Your task to perform on an android device: open app "Life360: Find Family & Friends" (install if not already installed) Image 0: 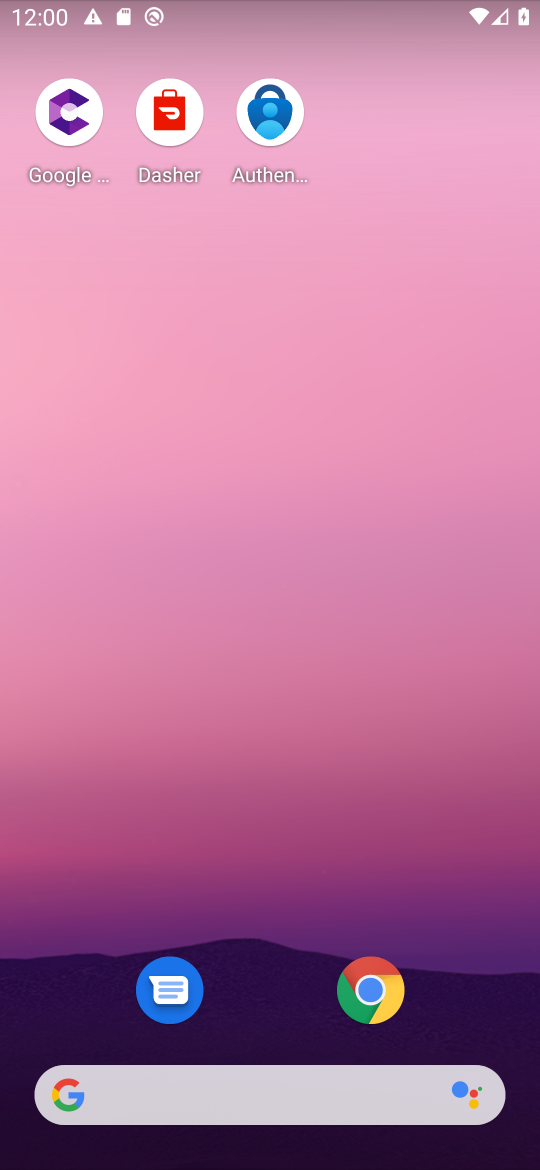
Step 0: drag from (247, 1039) to (304, 181)
Your task to perform on an android device: open app "Life360: Find Family & Friends" (install if not already installed) Image 1: 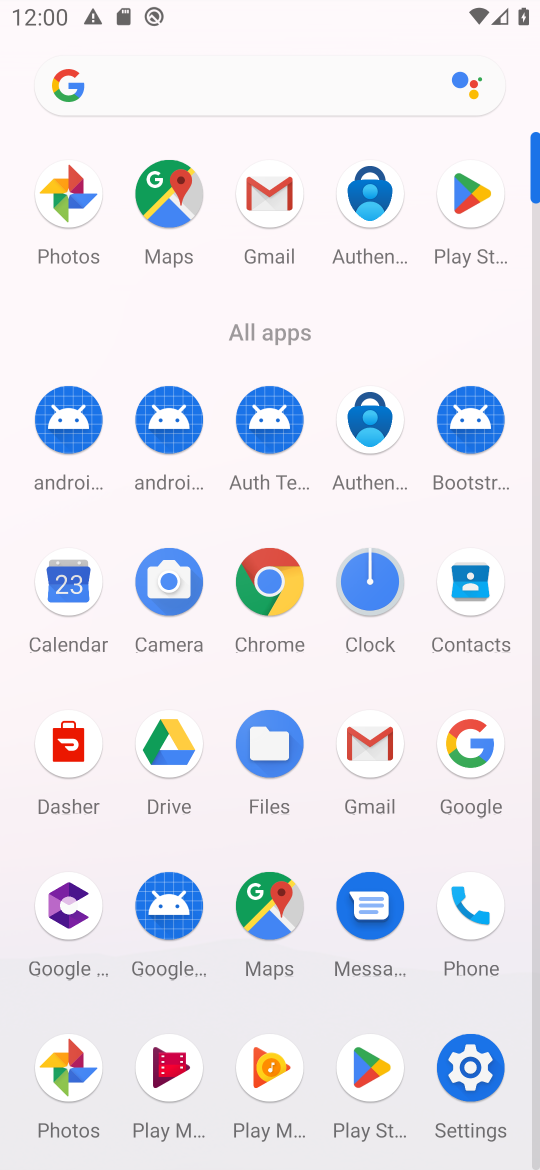
Step 1: click (487, 182)
Your task to perform on an android device: open app "Life360: Find Family & Friends" (install if not already installed) Image 2: 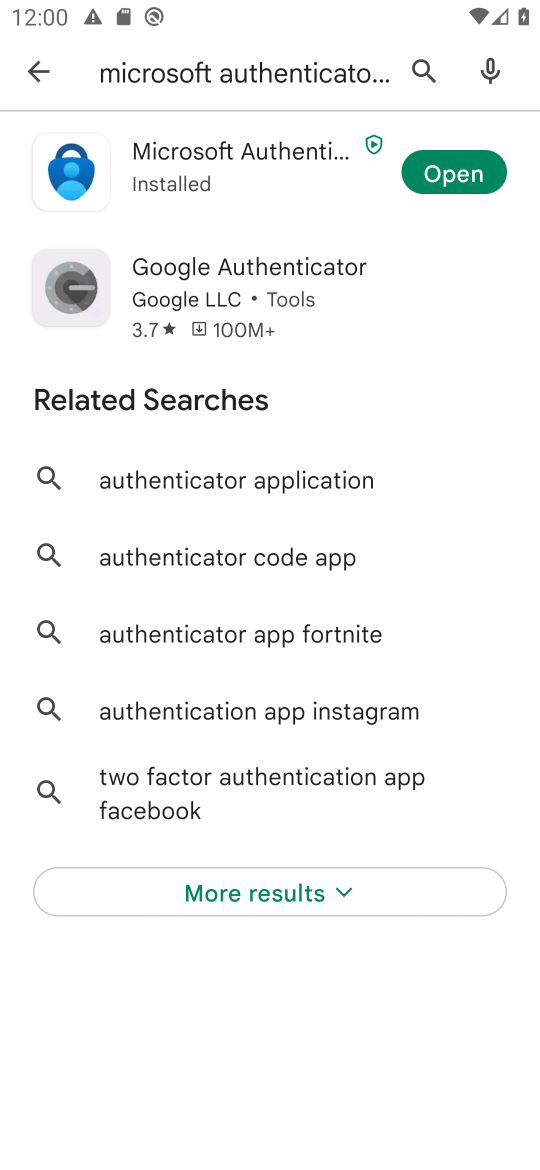
Step 2: click (38, 50)
Your task to perform on an android device: open app "Life360: Find Family & Friends" (install if not already installed) Image 3: 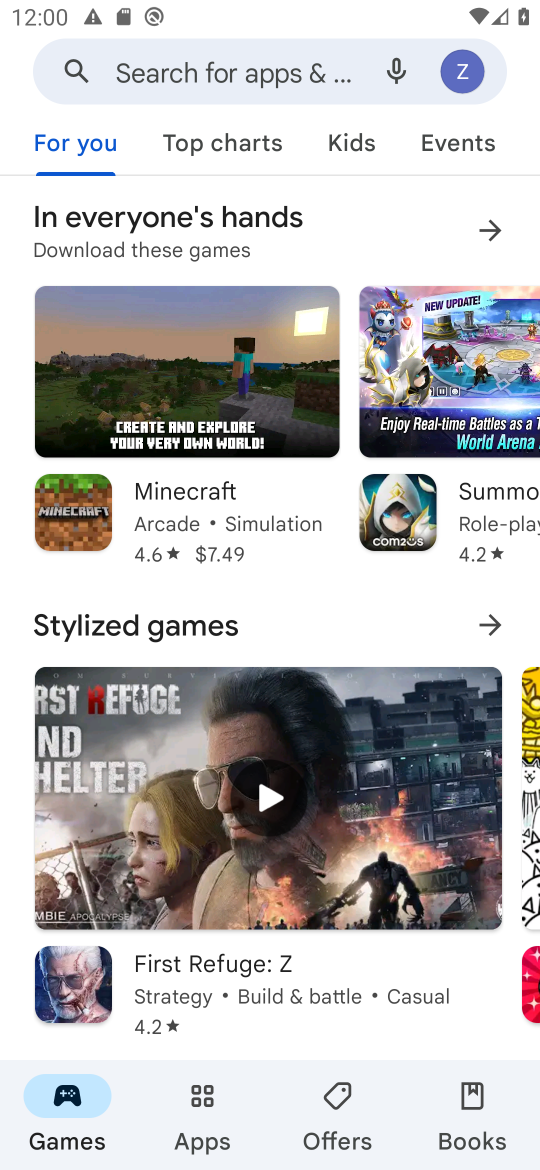
Step 3: click (249, 62)
Your task to perform on an android device: open app "Life360: Find Family & Friends" (install if not already installed) Image 4: 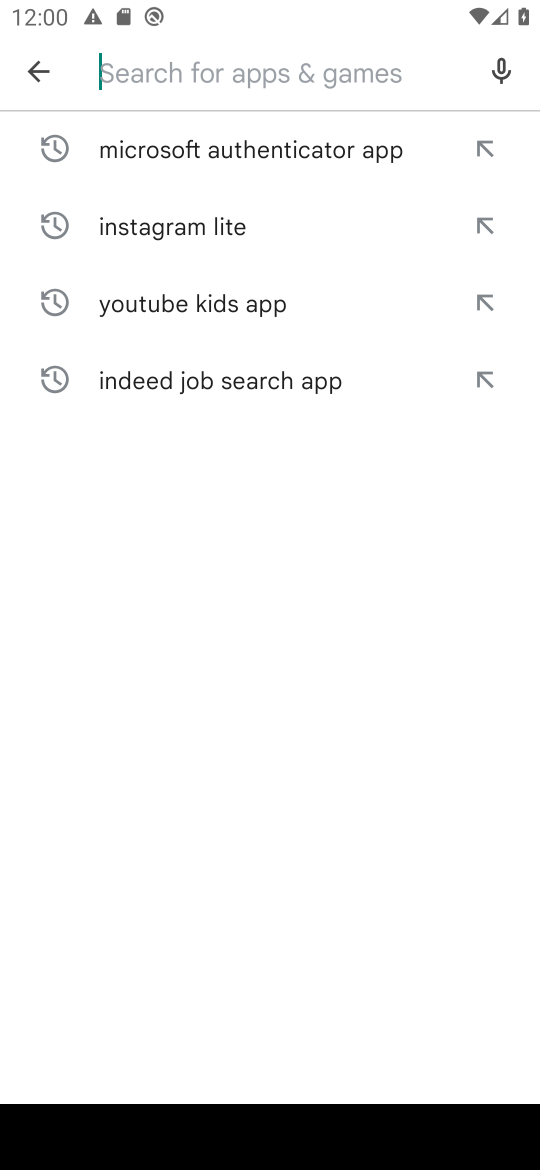
Step 4: click (160, 75)
Your task to perform on an android device: open app "Life360: Find Family & Friends" (install if not already installed) Image 5: 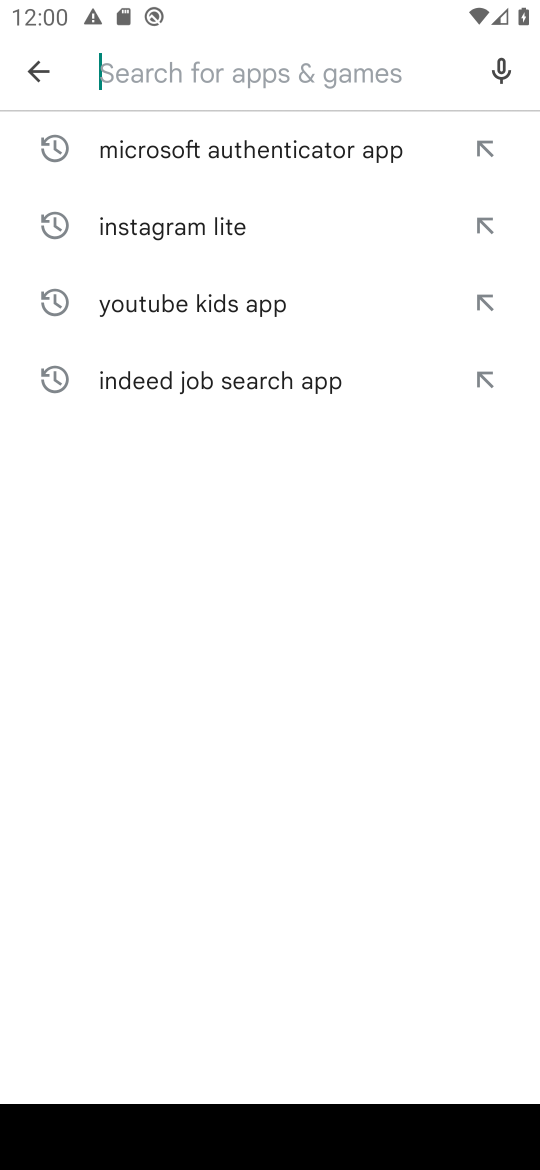
Step 5: type "Life360: Find Family & Friends "
Your task to perform on an android device: open app "Life360: Find Family & Friends" (install if not already installed) Image 6: 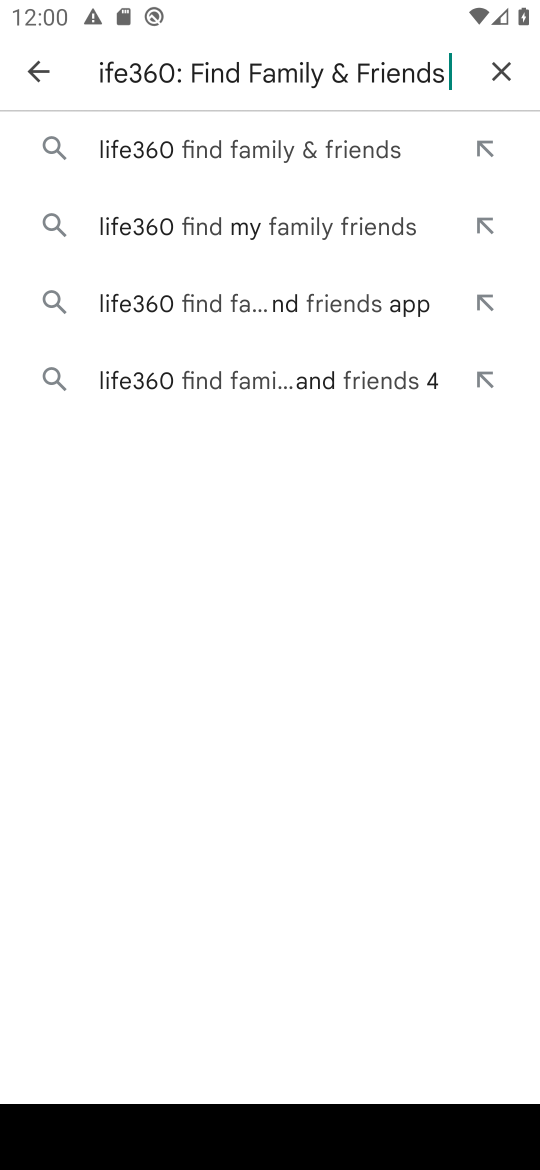
Step 6: click (186, 147)
Your task to perform on an android device: open app "Life360: Find Family & Friends" (install if not already installed) Image 7: 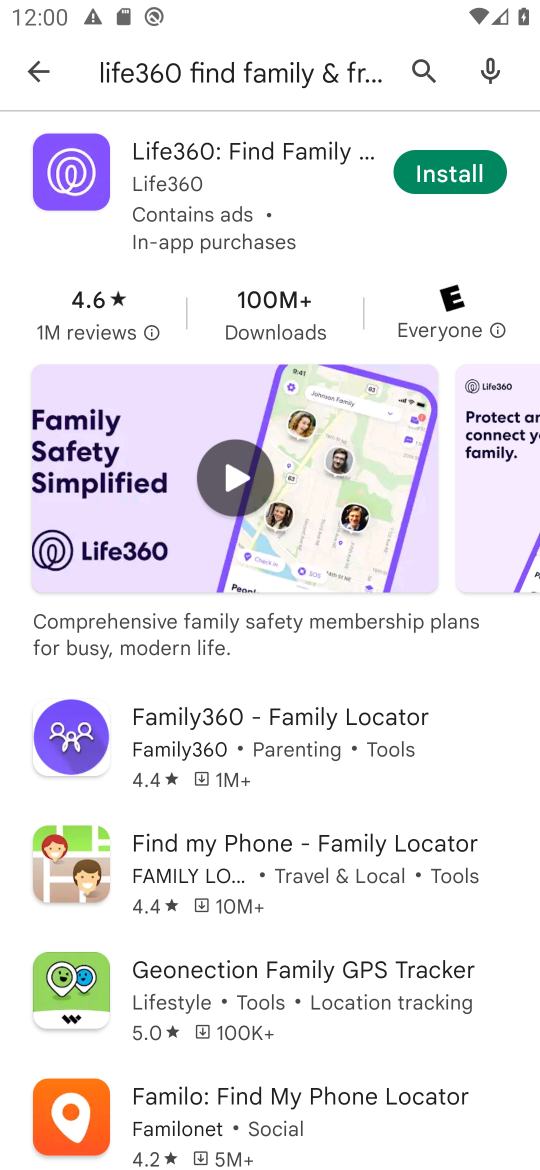
Step 7: click (446, 174)
Your task to perform on an android device: open app "Life360: Find Family & Friends" (install if not already installed) Image 8: 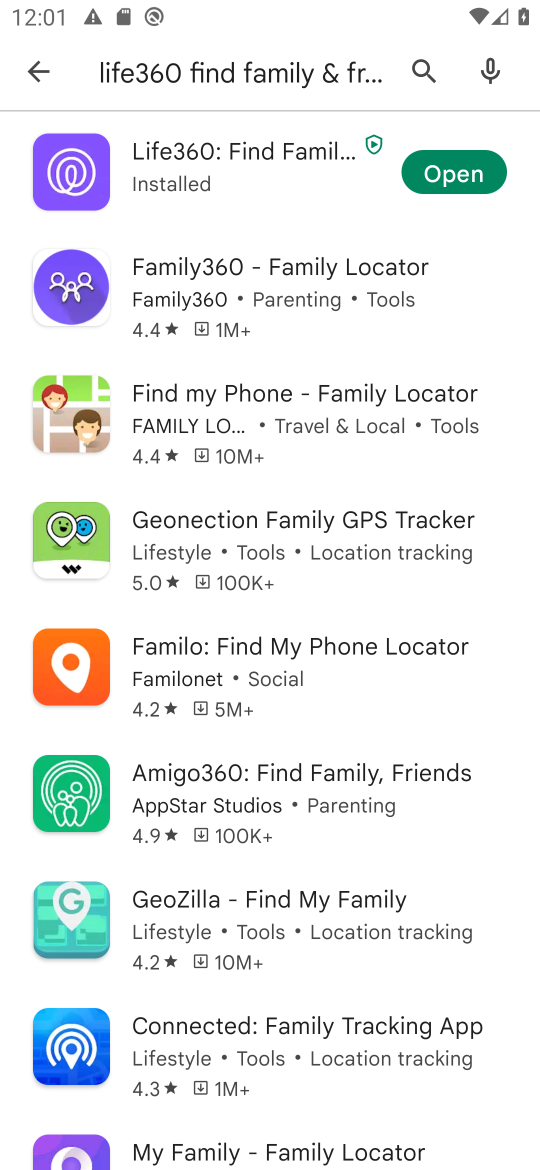
Step 8: click (444, 155)
Your task to perform on an android device: open app "Life360: Find Family & Friends" (install if not already installed) Image 9: 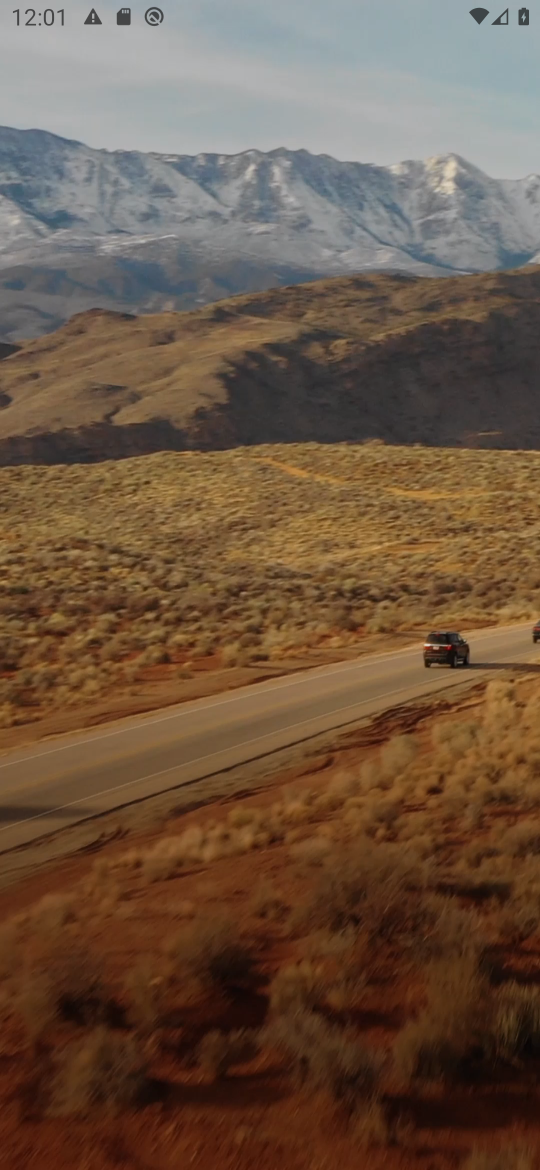
Step 9: task complete